Your task to perform on an android device: check android version Image 0: 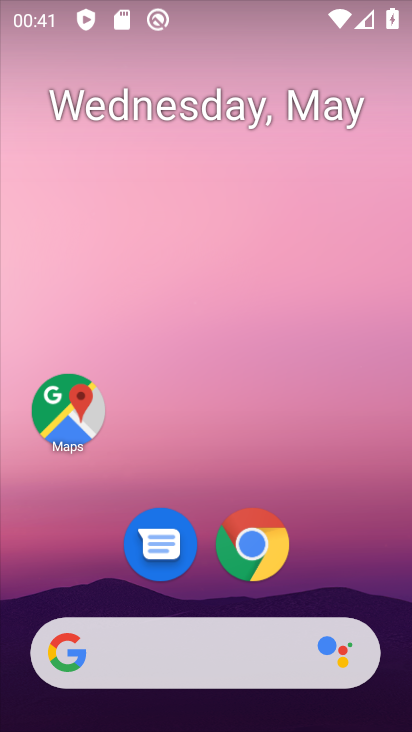
Step 0: drag from (341, 523) to (345, 154)
Your task to perform on an android device: check android version Image 1: 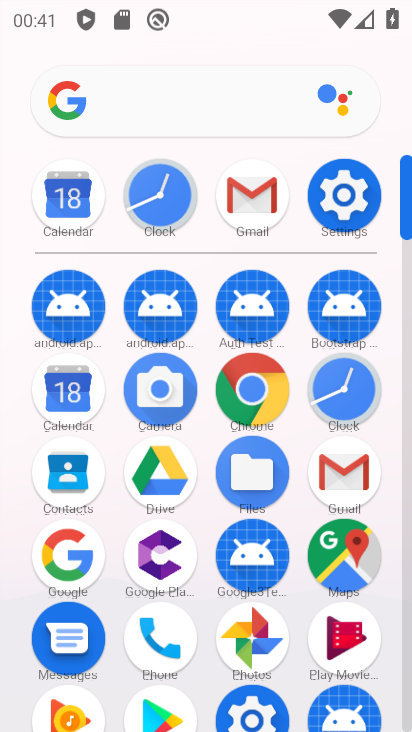
Step 1: click (333, 221)
Your task to perform on an android device: check android version Image 2: 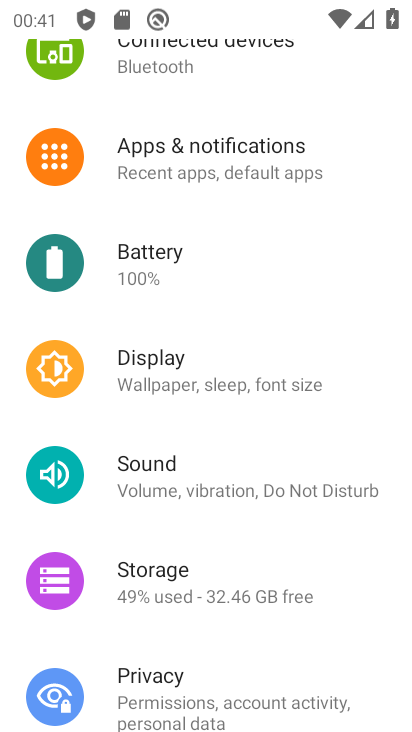
Step 2: click (277, 94)
Your task to perform on an android device: check android version Image 3: 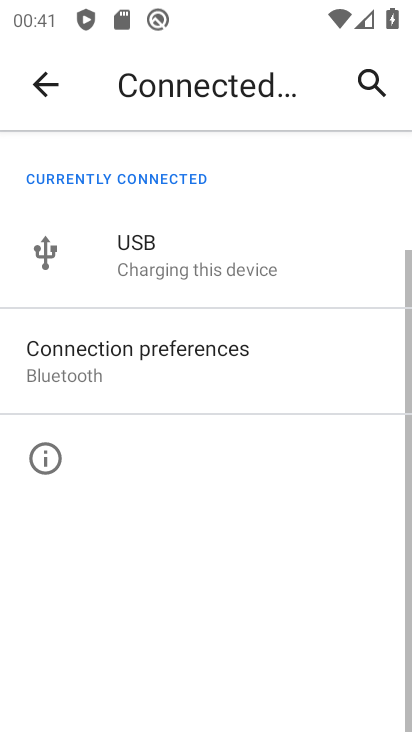
Step 3: drag from (229, 568) to (292, 163)
Your task to perform on an android device: check android version Image 4: 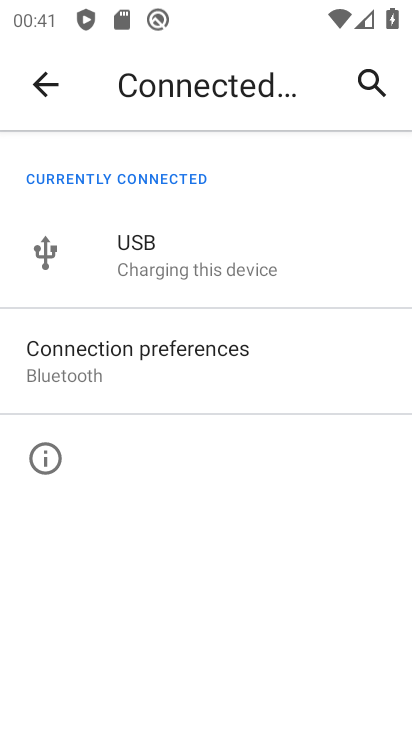
Step 4: click (57, 84)
Your task to perform on an android device: check android version Image 5: 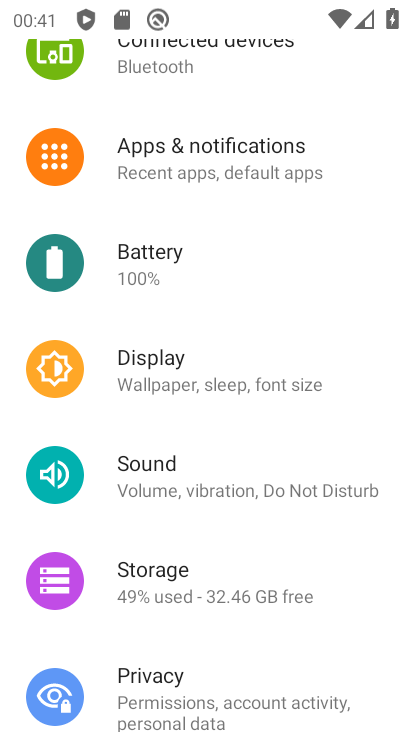
Step 5: drag from (184, 590) to (282, 108)
Your task to perform on an android device: check android version Image 6: 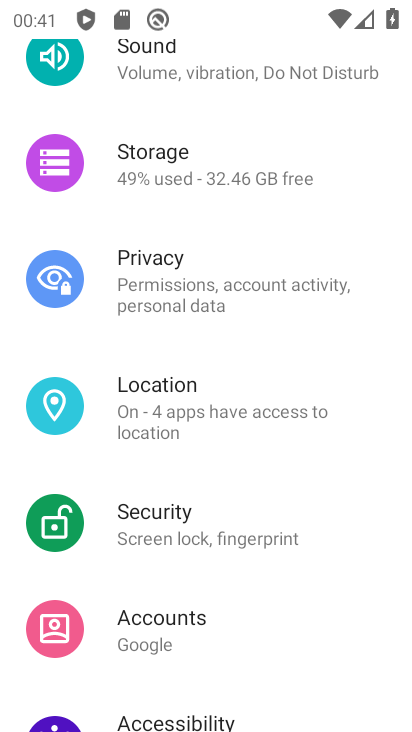
Step 6: drag from (179, 554) to (327, 139)
Your task to perform on an android device: check android version Image 7: 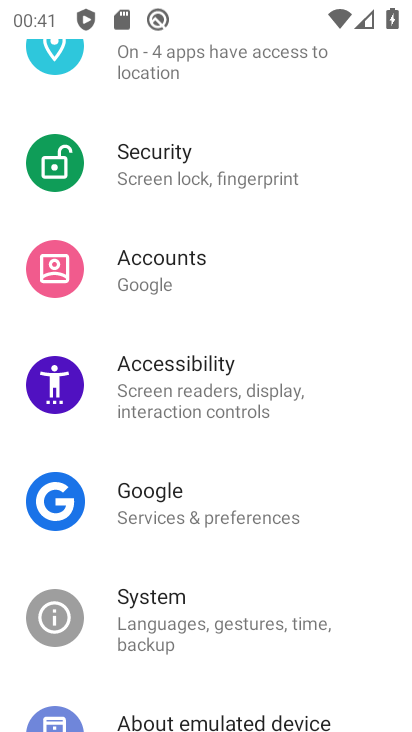
Step 7: drag from (175, 551) to (294, 200)
Your task to perform on an android device: check android version Image 8: 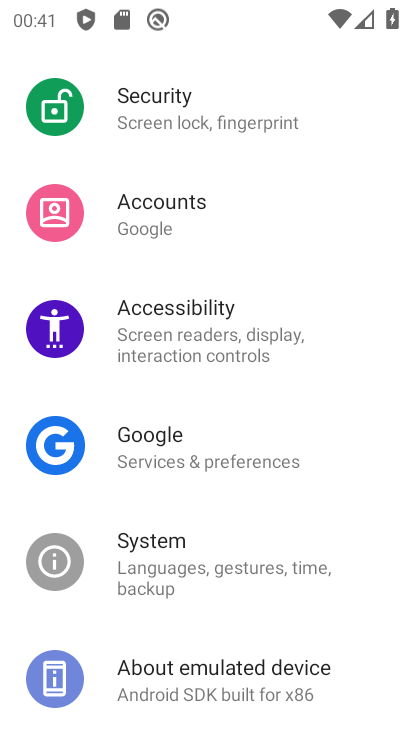
Step 8: click (185, 677)
Your task to perform on an android device: check android version Image 9: 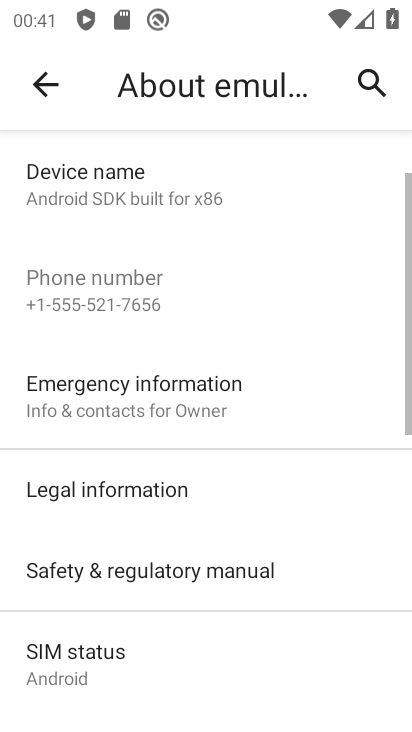
Step 9: drag from (252, 619) to (311, 131)
Your task to perform on an android device: check android version Image 10: 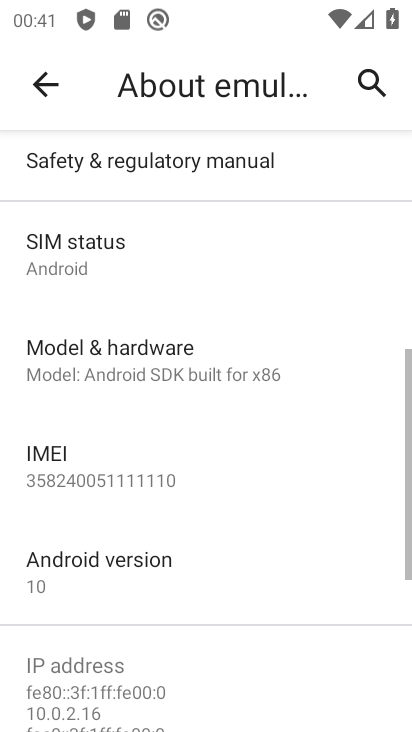
Step 10: click (152, 587)
Your task to perform on an android device: check android version Image 11: 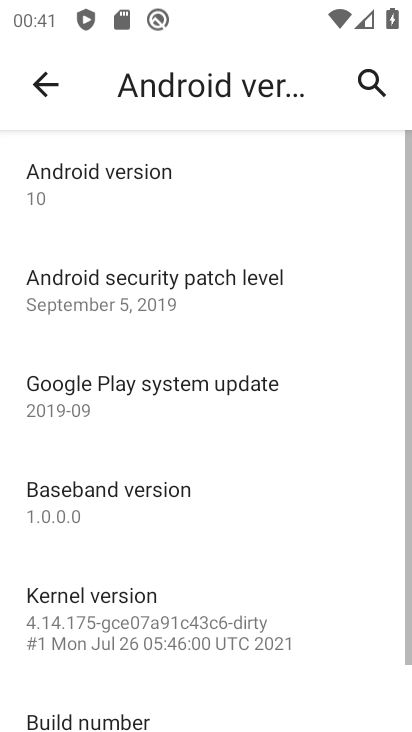
Step 11: task complete